Your task to perform on an android device: What's the weather today? Image 0: 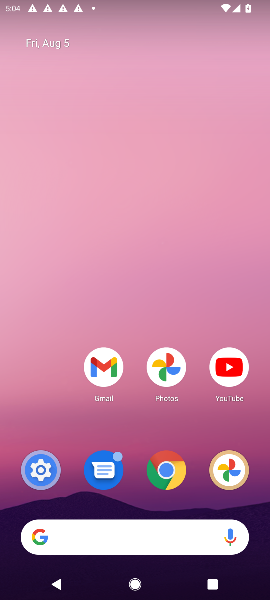
Step 0: drag from (137, 509) to (139, 123)
Your task to perform on an android device: What's the weather today? Image 1: 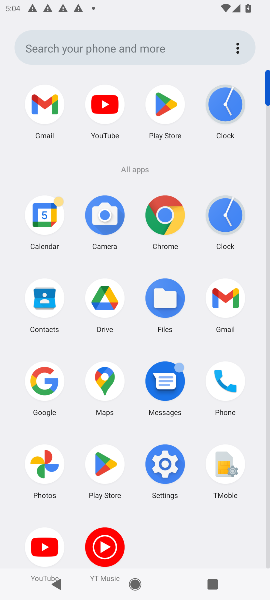
Step 1: click (51, 370)
Your task to perform on an android device: What's the weather today? Image 2: 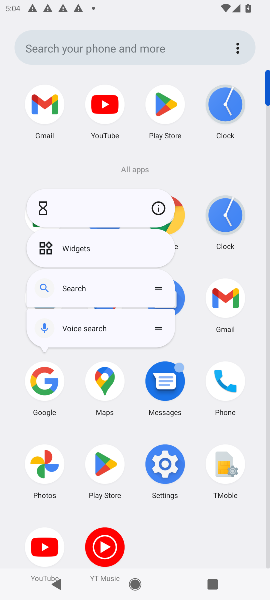
Step 2: click (40, 379)
Your task to perform on an android device: What's the weather today? Image 3: 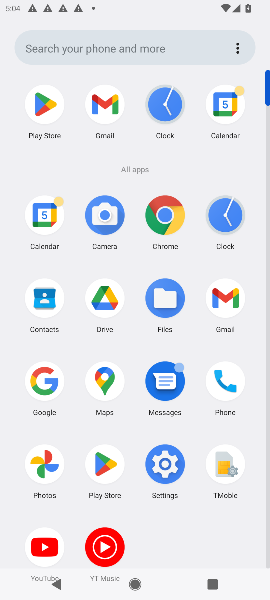
Step 3: click (43, 378)
Your task to perform on an android device: What's the weather today? Image 4: 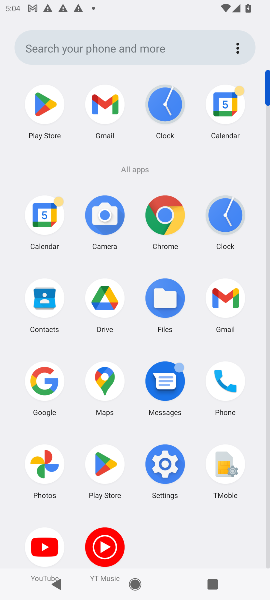
Step 4: click (41, 387)
Your task to perform on an android device: What's the weather today? Image 5: 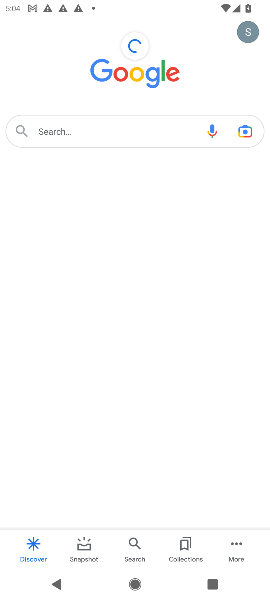
Step 5: click (93, 132)
Your task to perform on an android device: What's the weather today? Image 6: 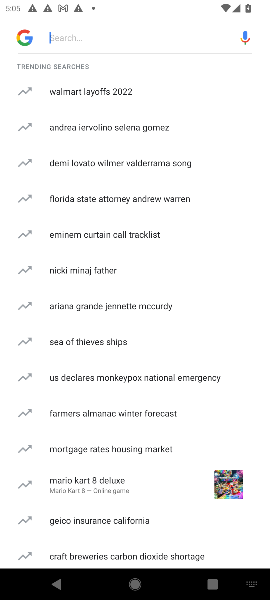
Step 6: type "weather"
Your task to perform on an android device: What's the weather today? Image 7: 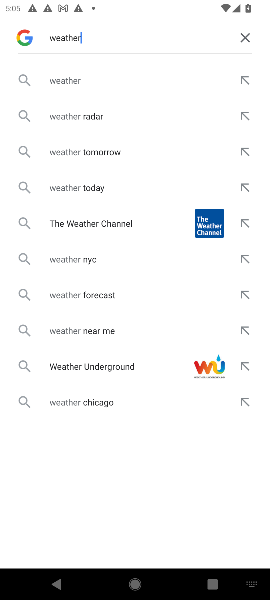
Step 7: click (74, 79)
Your task to perform on an android device: What's the weather today? Image 8: 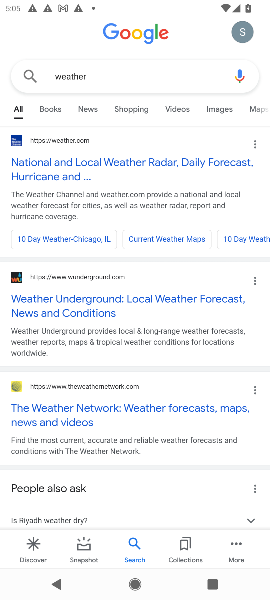
Step 8: task complete